Your task to perform on an android device: What's on my calendar today? Image 0: 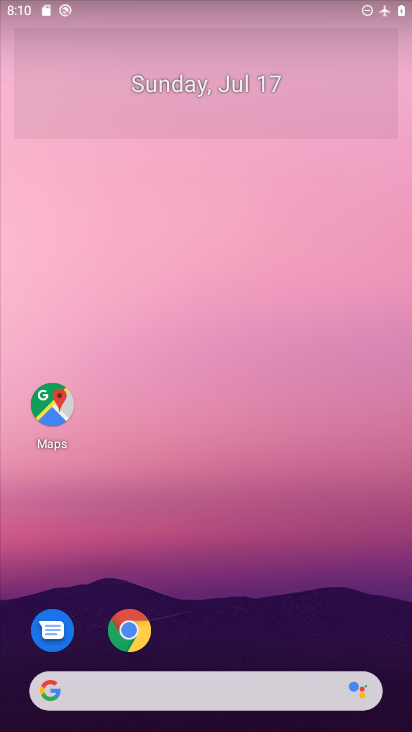
Step 0: drag from (244, 581) to (230, 81)
Your task to perform on an android device: What's on my calendar today? Image 1: 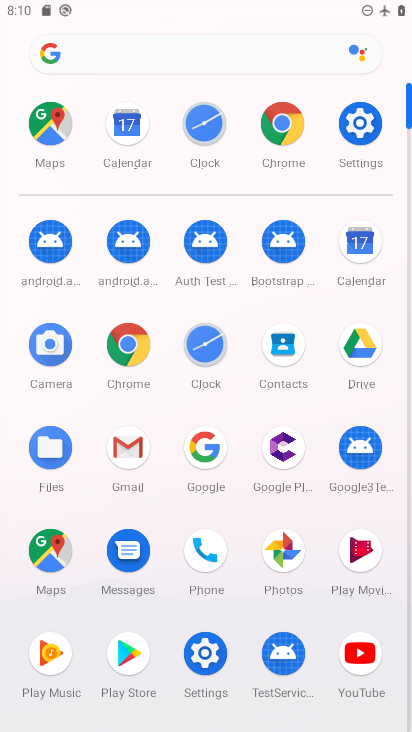
Step 1: click (356, 245)
Your task to perform on an android device: What's on my calendar today? Image 2: 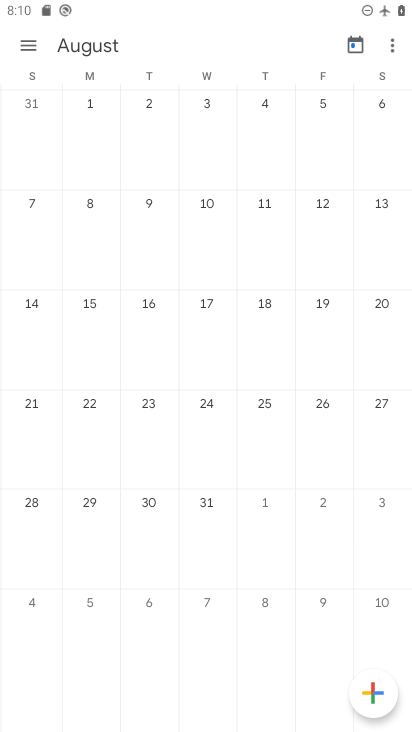
Step 2: drag from (101, 202) to (406, 186)
Your task to perform on an android device: What's on my calendar today? Image 3: 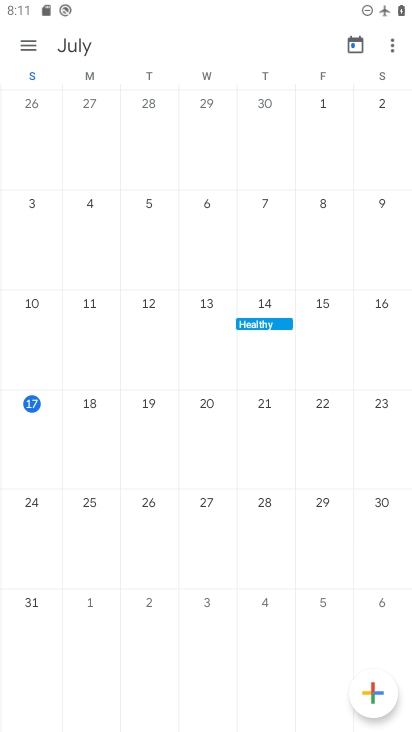
Step 3: click (92, 427)
Your task to perform on an android device: What's on my calendar today? Image 4: 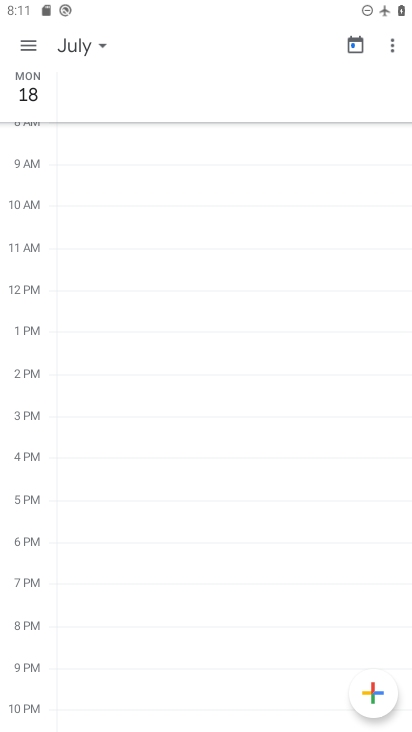
Step 4: task complete